Your task to perform on an android device: Search for "apple airpods" on target.com, select the first entry, and add it to the cart. Image 0: 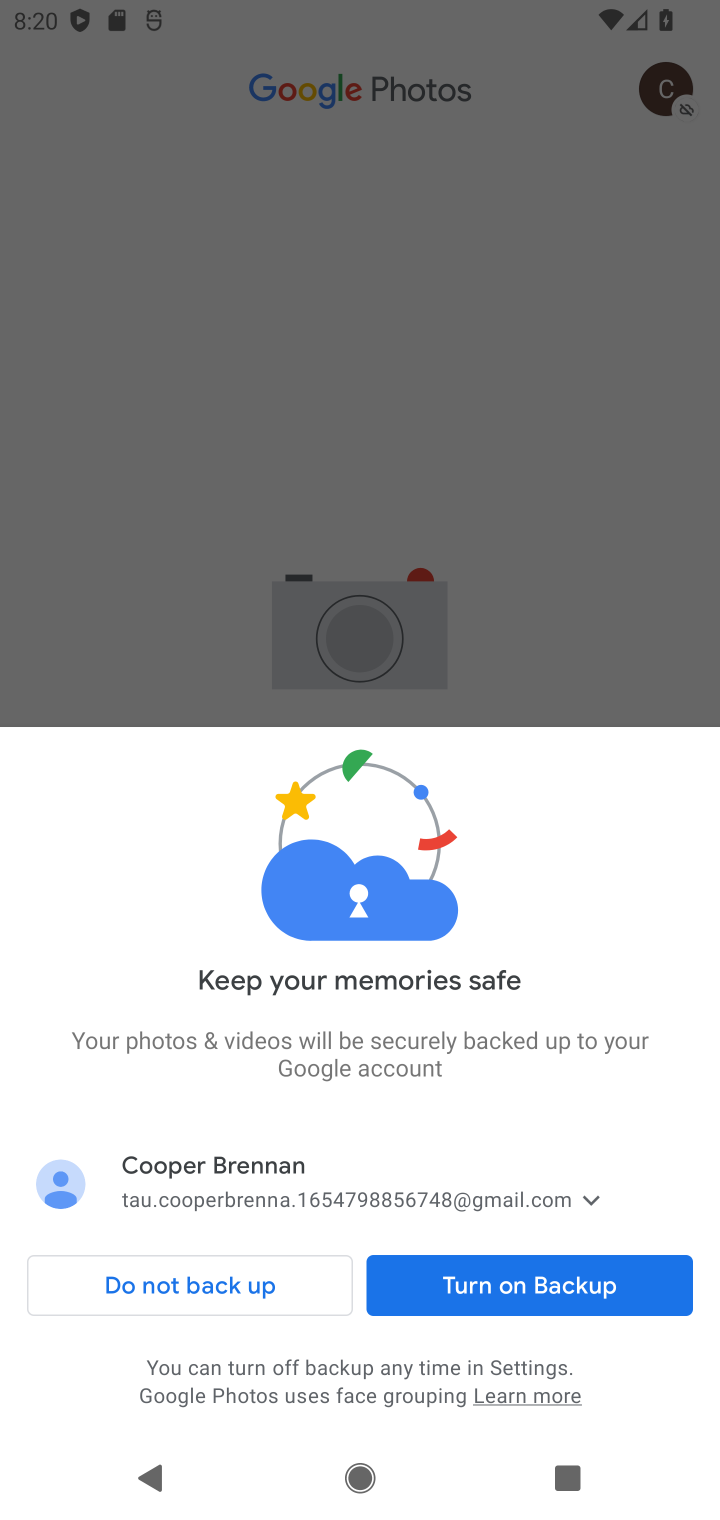
Step 0: press home button
Your task to perform on an android device: Search for "apple airpods" on target.com, select the first entry, and add it to the cart. Image 1: 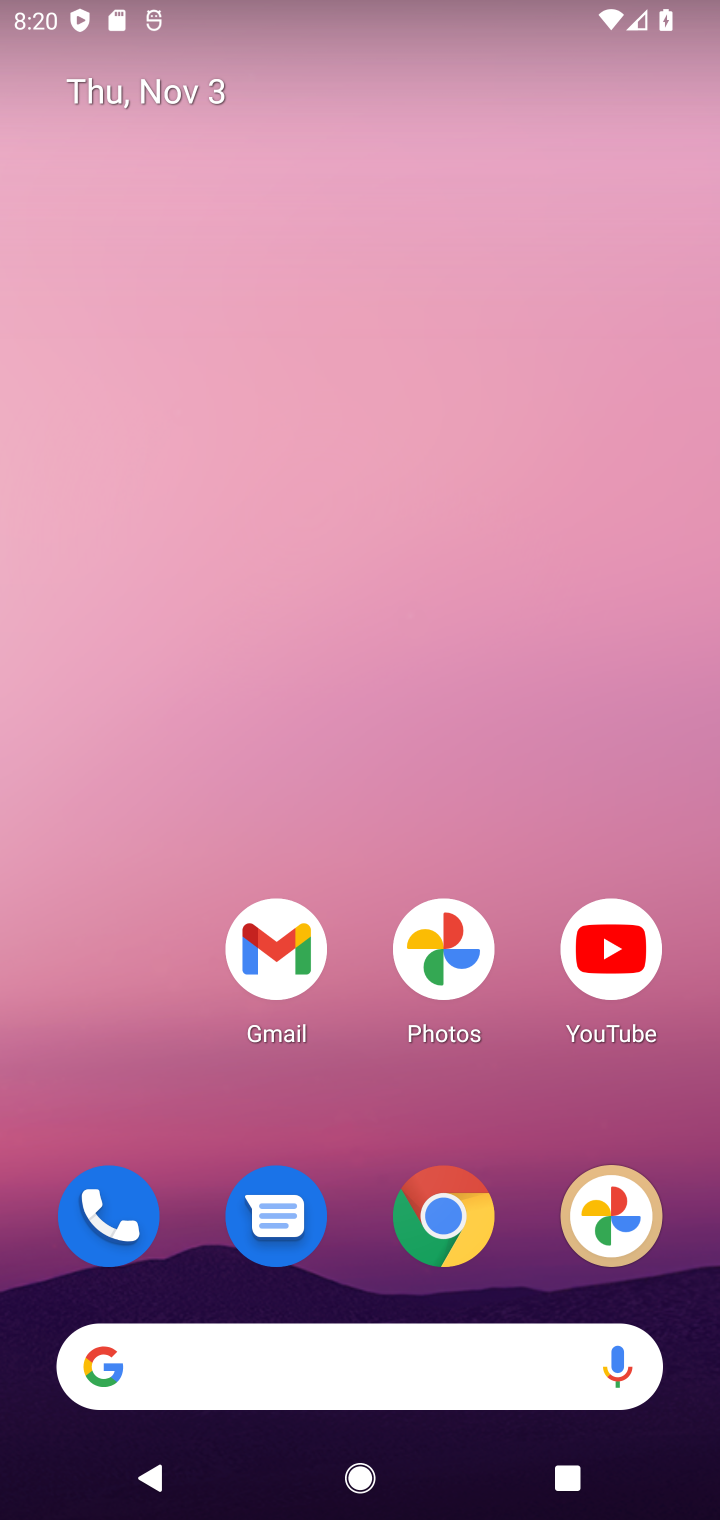
Step 1: click (445, 1232)
Your task to perform on an android device: Search for "apple airpods" on target.com, select the first entry, and add it to the cart. Image 2: 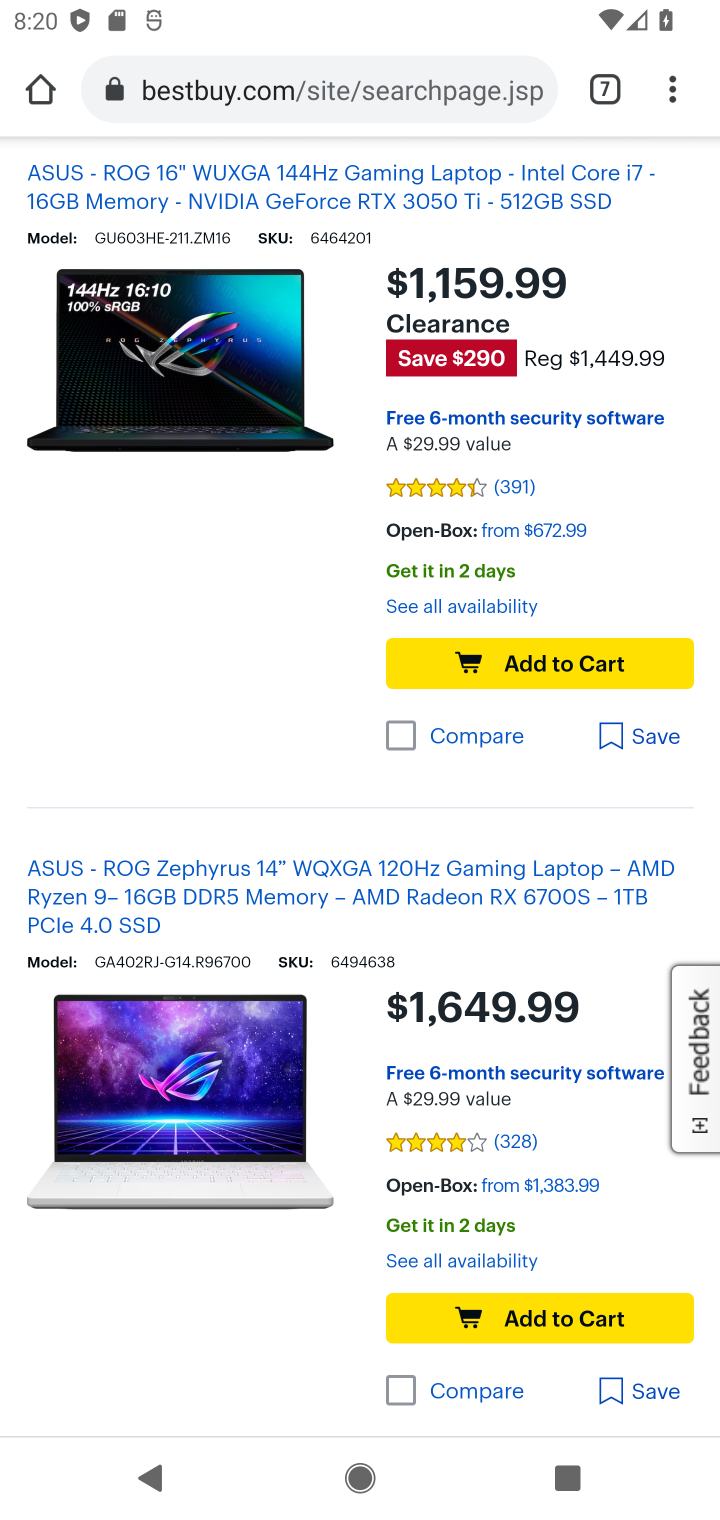
Step 2: click (618, 86)
Your task to perform on an android device: Search for "apple airpods" on target.com, select the first entry, and add it to the cart. Image 3: 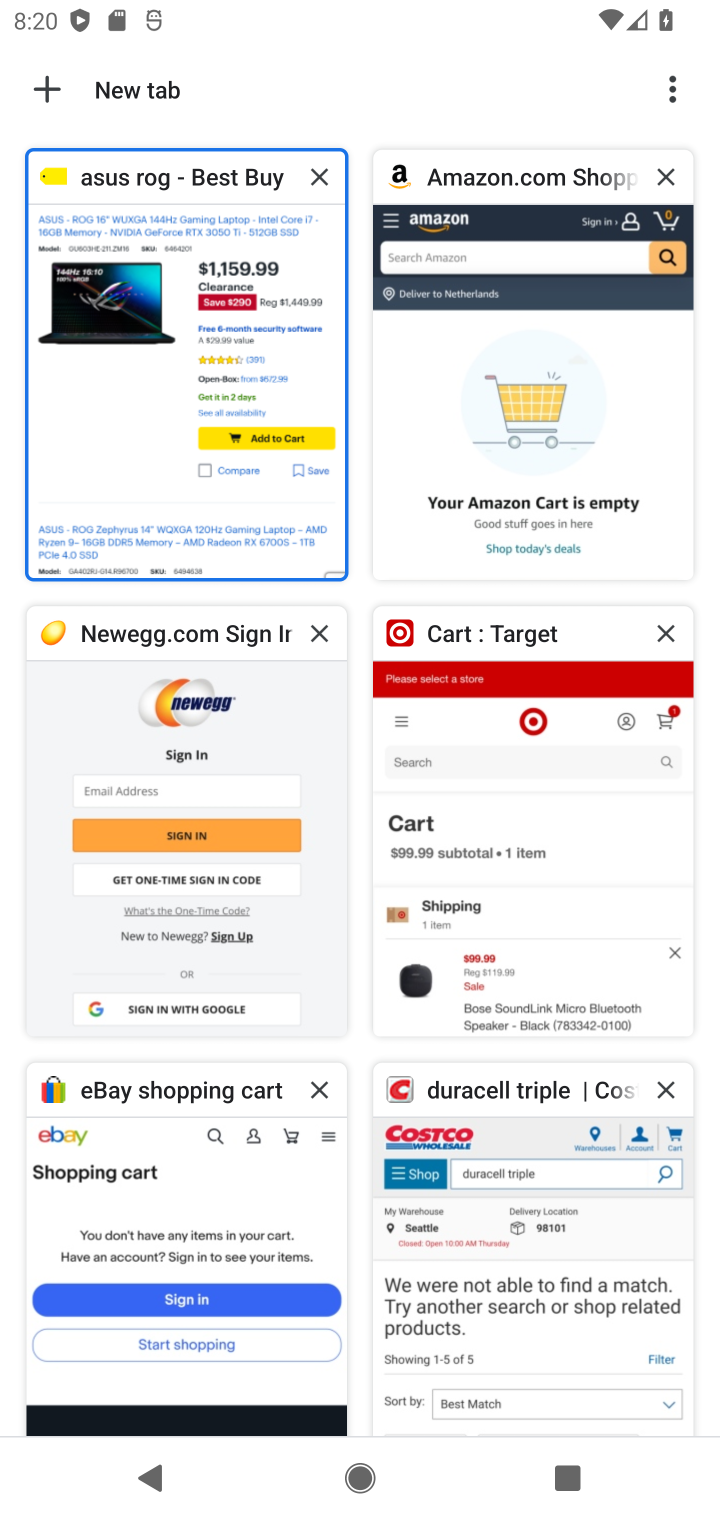
Step 3: click (490, 834)
Your task to perform on an android device: Search for "apple airpods" on target.com, select the first entry, and add it to the cart. Image 4: 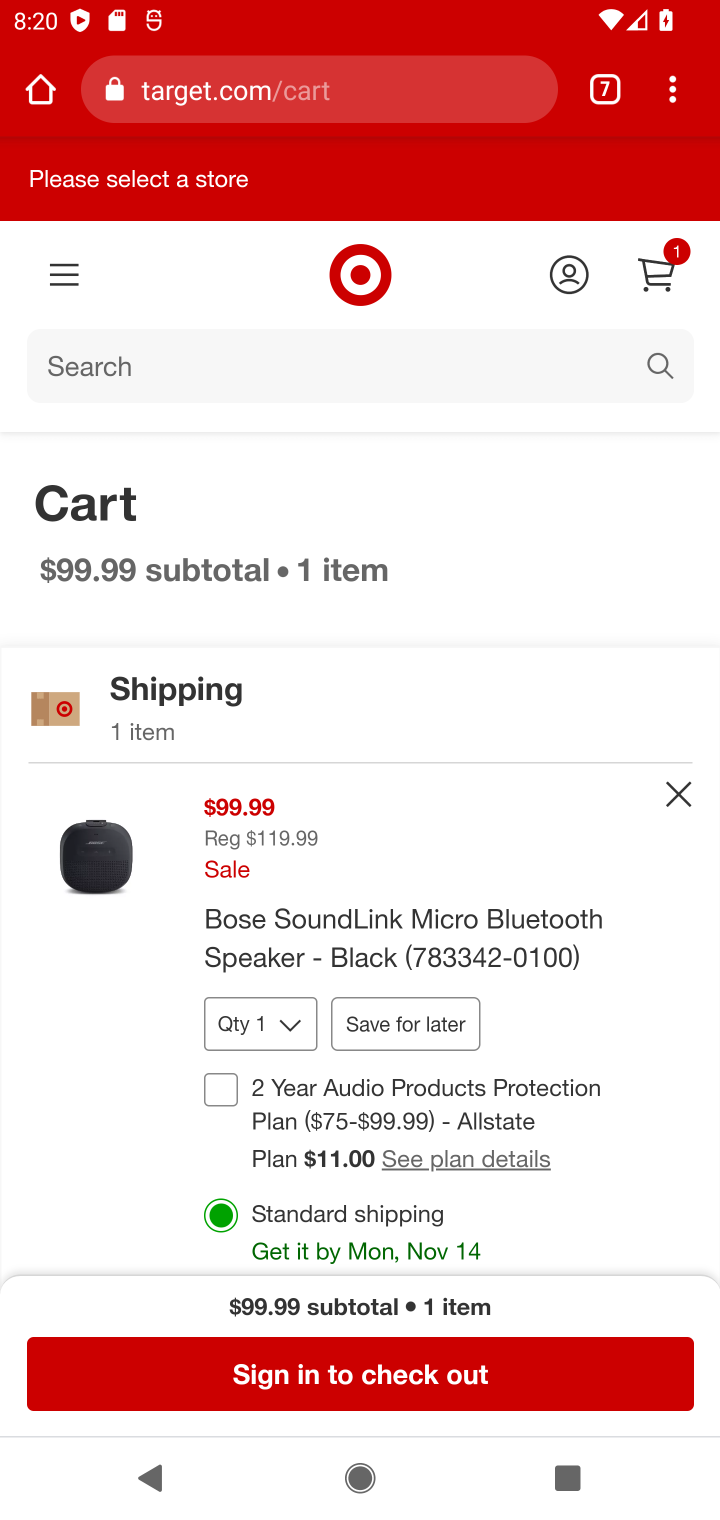
Step 4: click (173, 350)
Your task to perform on an android device: Search for "apple airpods" on target.com, select the first entry, and add it to the cart. Image 5: 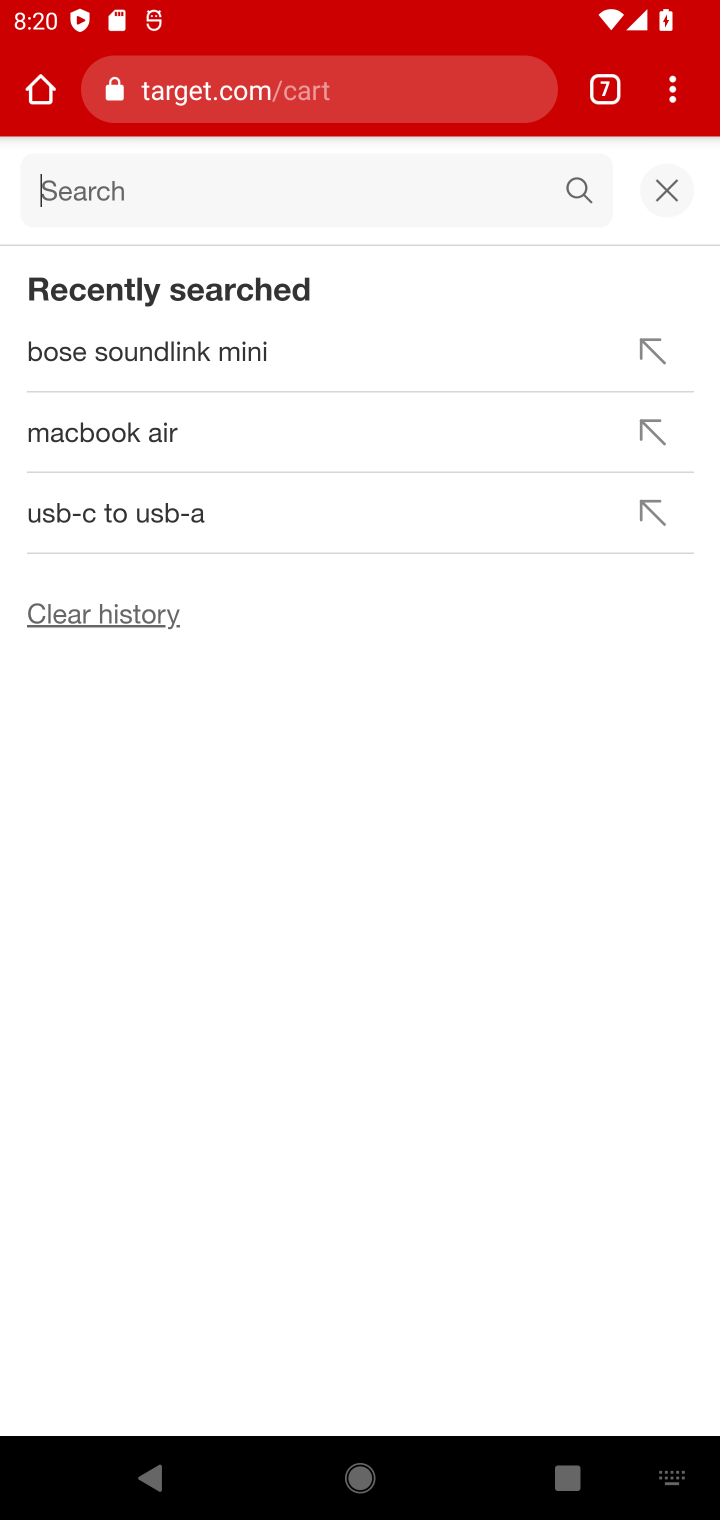
Step 5: type "apple airpods"
Your task to perform on an android device: Search for "apple airpods" on target.com, select the first entry, and add it to the cart. Image 6: 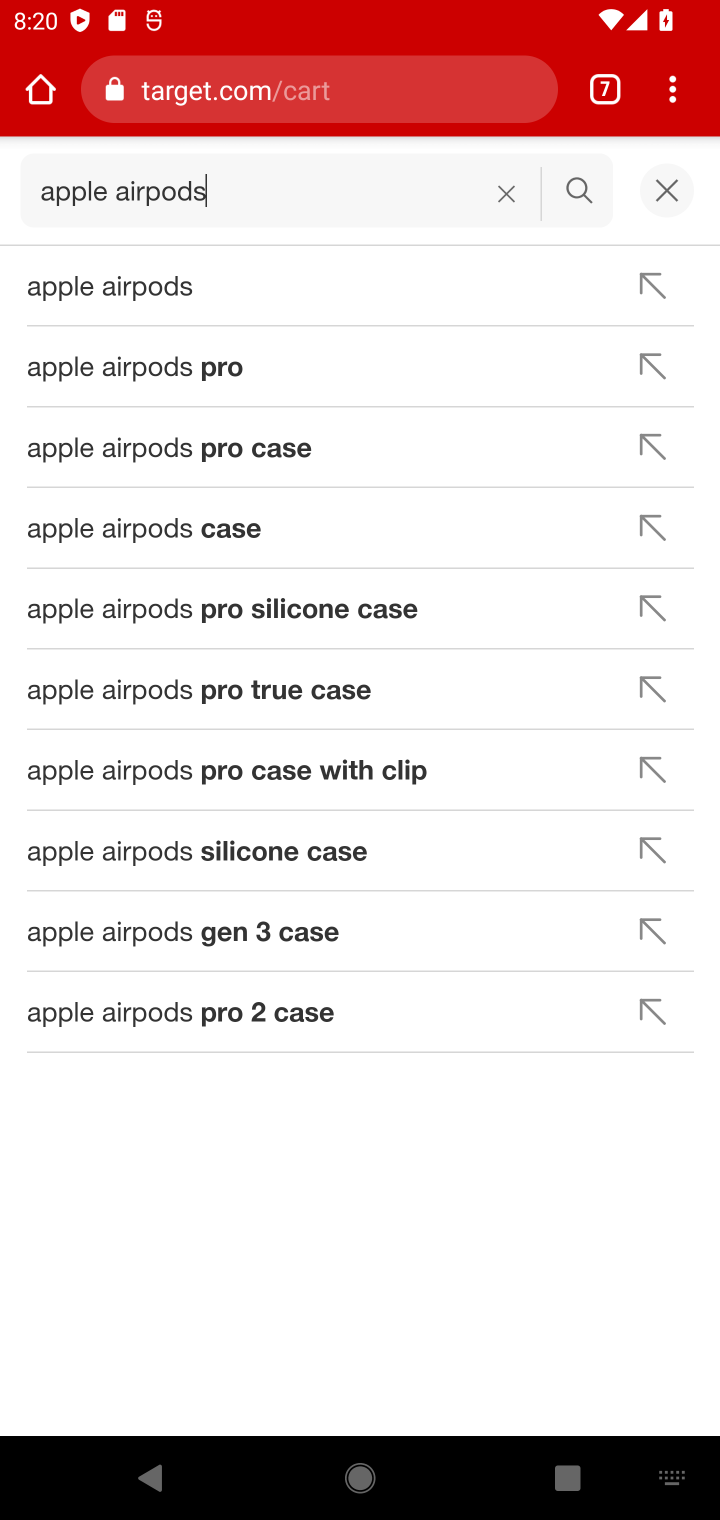
Step 6: press enter
Your task to perform on an android device: Search for "apple airpods" on target.com, select the first entry, and add it to the cart. Image 7: 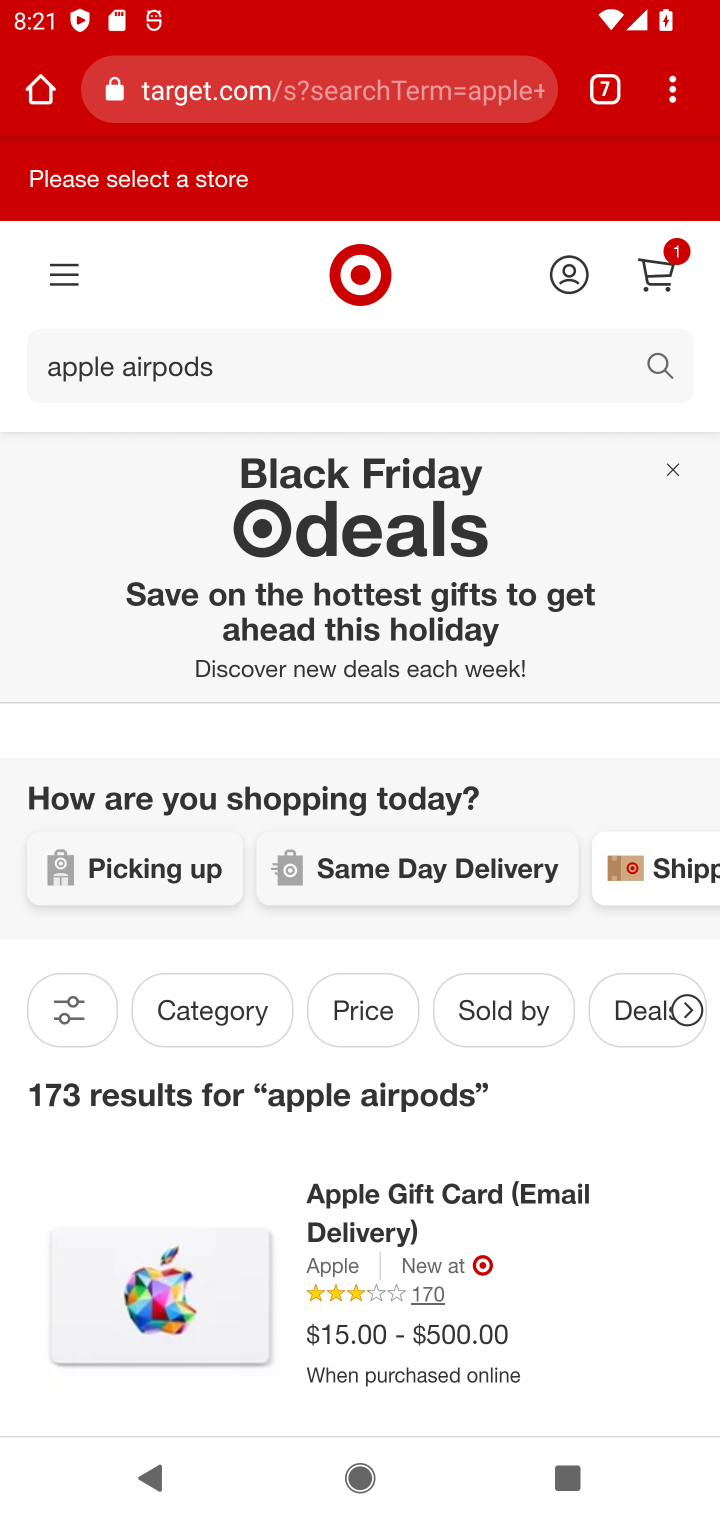
Step 7: drag from (576, 1321) to (540, 735)
Your task to perform on an android device: Search for "apple airpods" on target.com, select the first entry, and add it to the cart. Image 8: 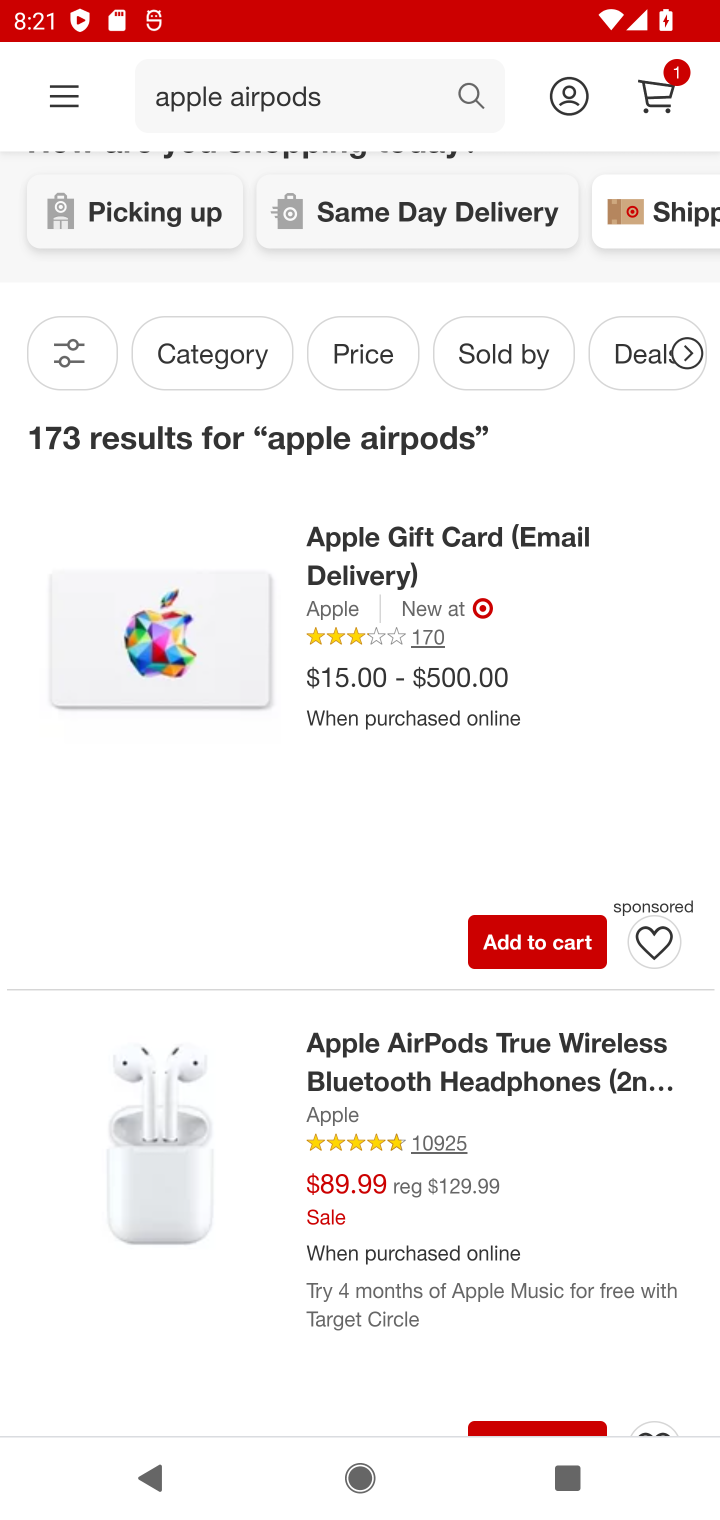
Step 8: click (498, 1072)
Your task to perform on an android device: Search for "apple airpods" on target.com, select the first entry, and add it to the cart. Image 9: 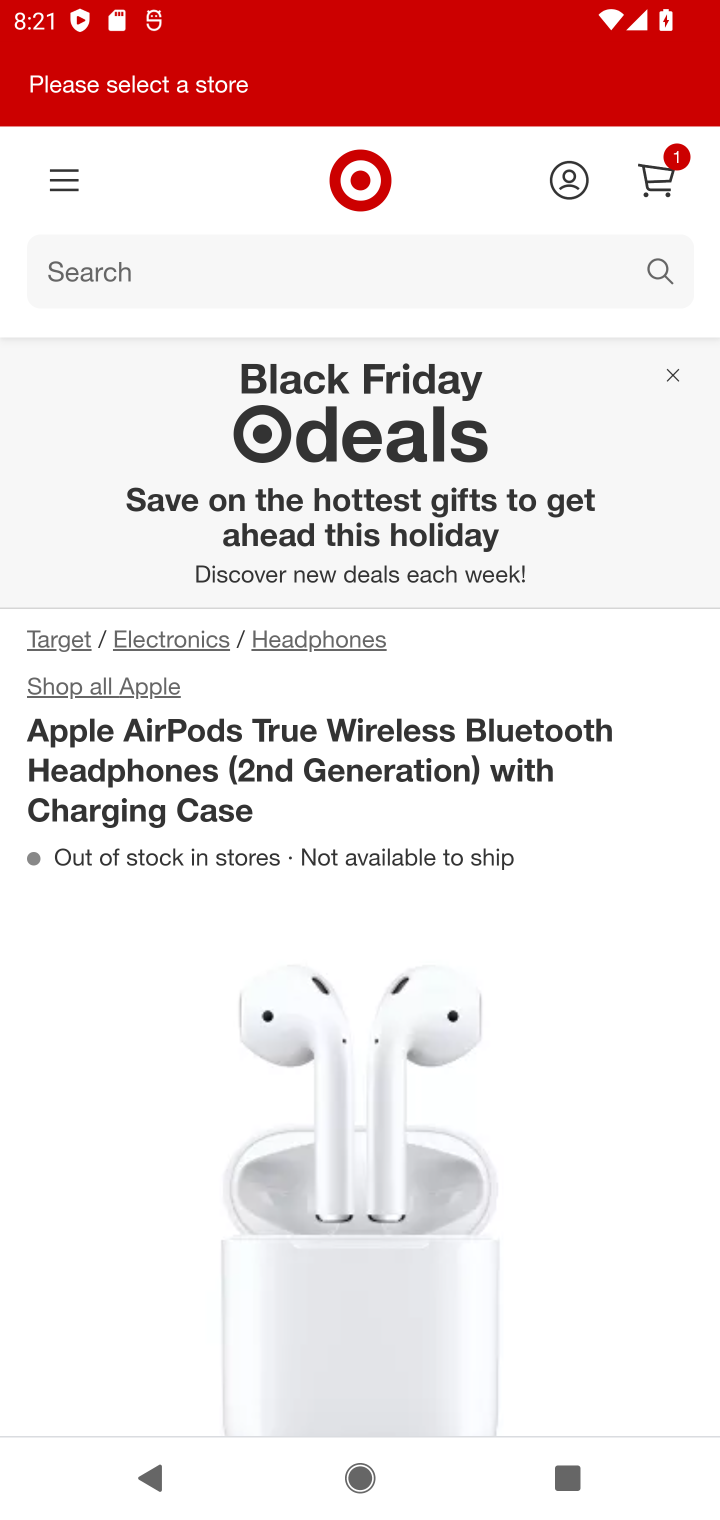
Step 9: drag from (498, 1072) to (397, 543)
Your task to perform on an android device: Search for "apple airpods" on target.com, select the first entry, and add it to the cart. Image 10: 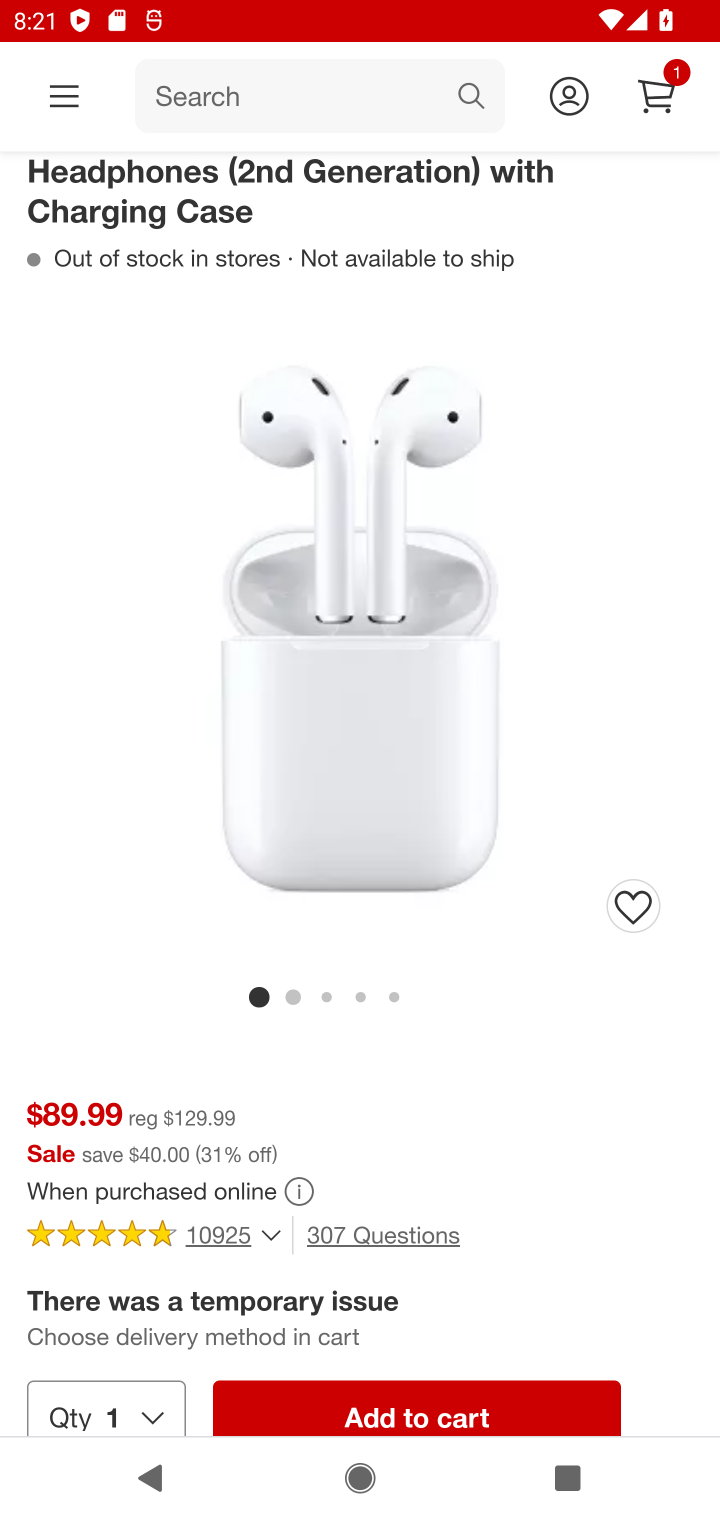
Step 10: click (426, 1405)
Your task to perform on an android device: Search for "apple airpods" on target.com, select the first entry, and add it to the cart. Image 11: 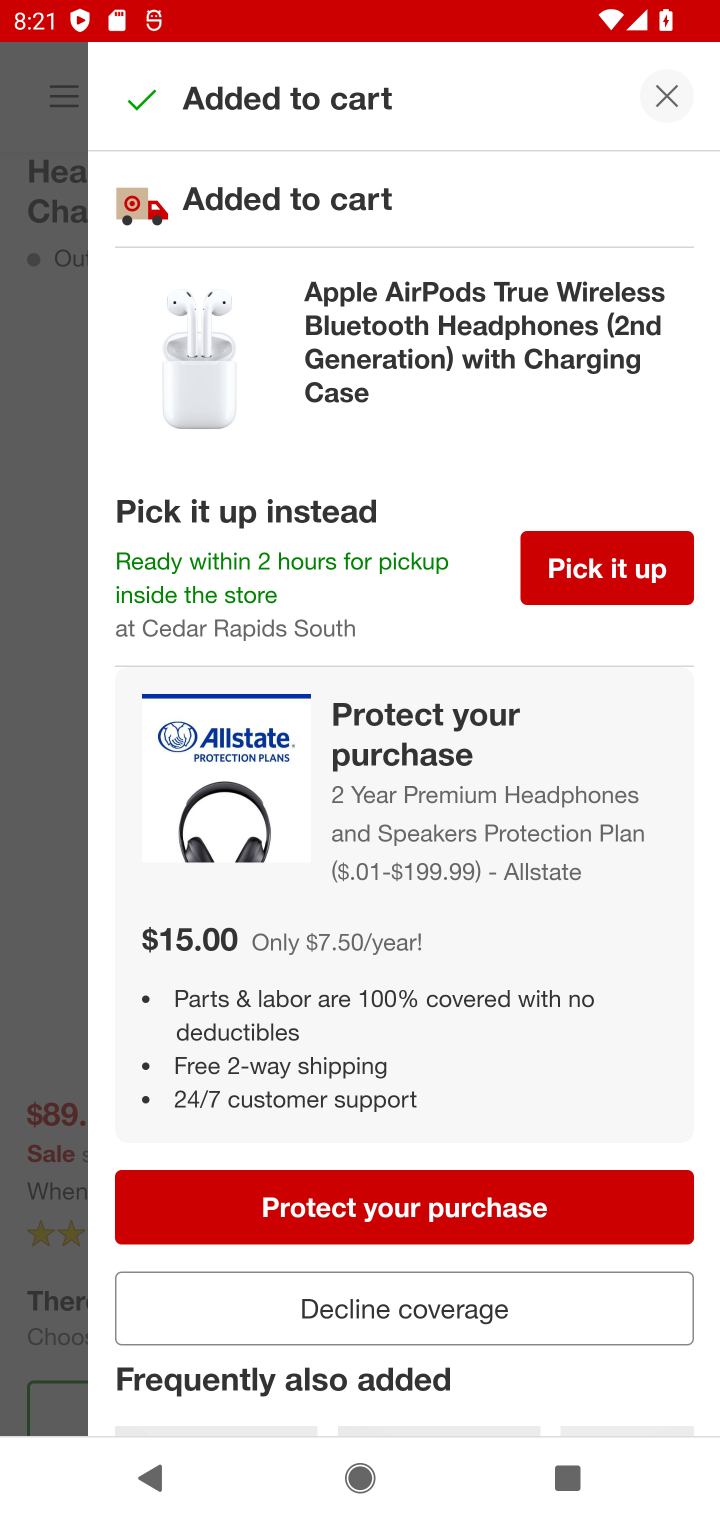
Step 11: task complete